Your task to perform on an android device: Open Google Maps Image 0: 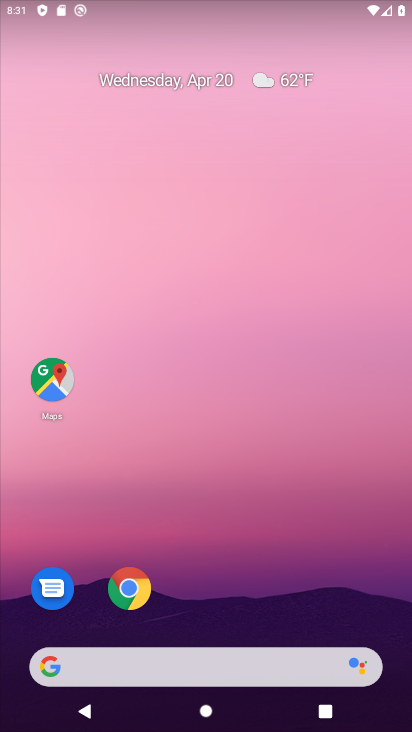
Step 0: drag from (268, 563) to (105, 18)
Your task to perform on an android device: Open Google Maps Image 1: 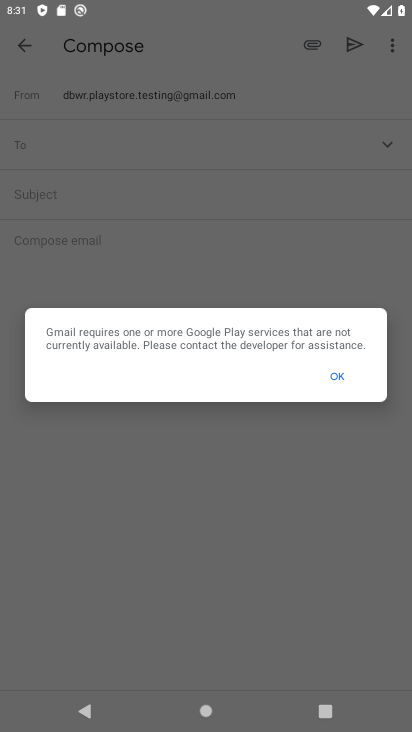
Step 1: press back button
Your task to perform on an android device: Open Google Maps Image 2: 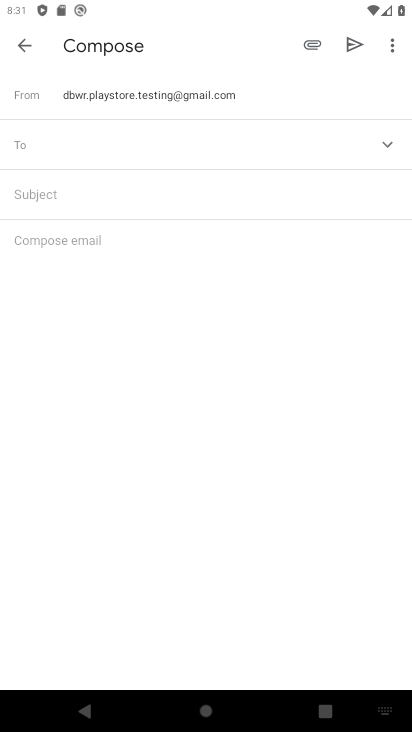
Step 2: press back button
Your task to perform on an android device: Open Google Maps Image 3: 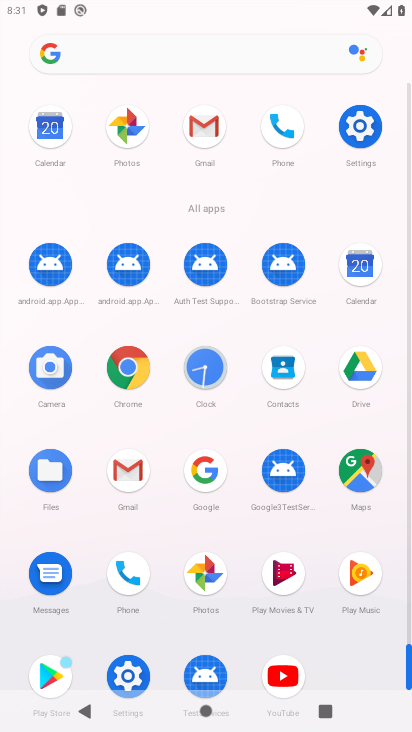
Step 3: drag from (12, 555) to (10, 236)
Your task to perform on an android device: Open Google Maps Image 4: 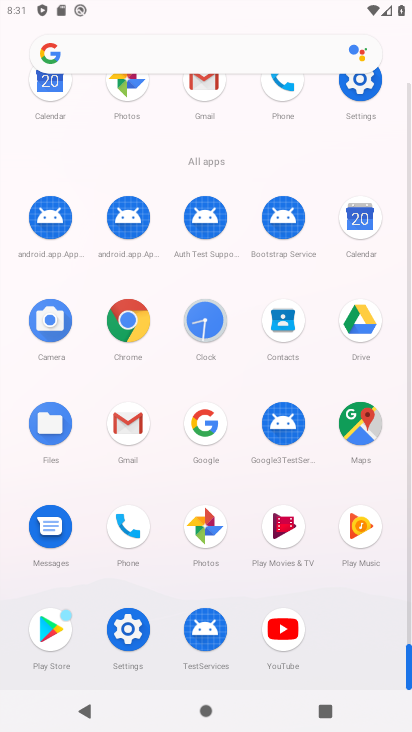
Step 4: click (357, 418)
Your task to perform on an android device: Open Google Maps Image 5: 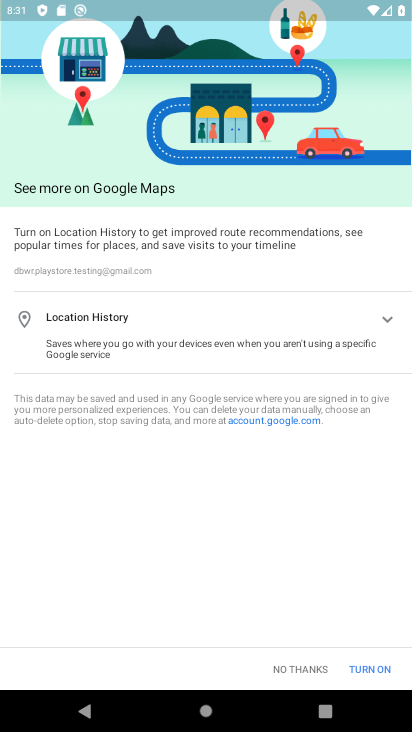
Step 5: click (368, 662)
Your task to perform on an android device: Open Google Maps Image 6: 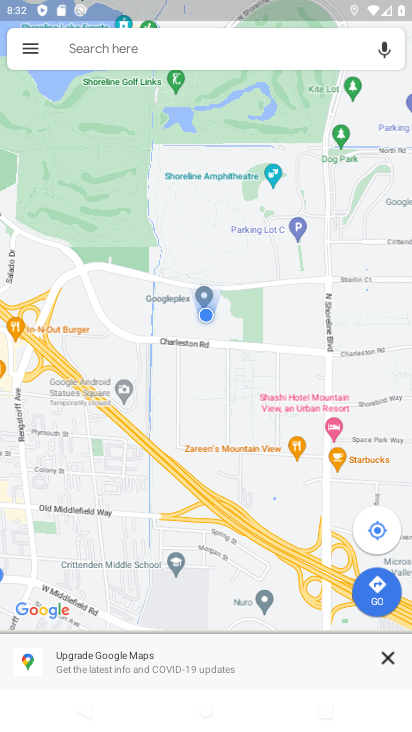
Step 6: task complete